Your task to perform on an android device: Find coffee shops on Maps Image 0: 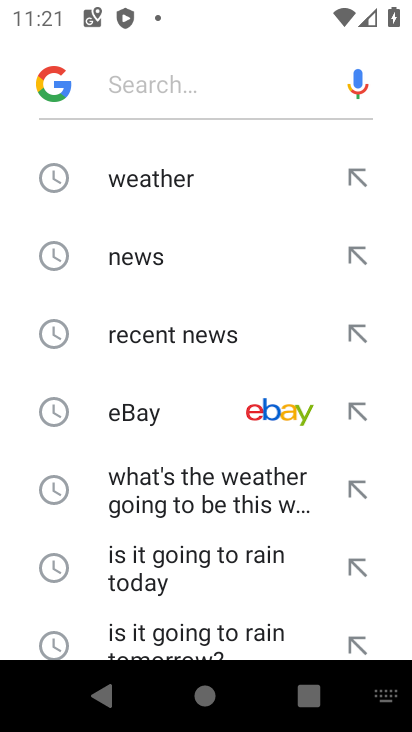
Step 0: press home button
Your task to perform on an android device: Find coffee shops on Maps Image 1: 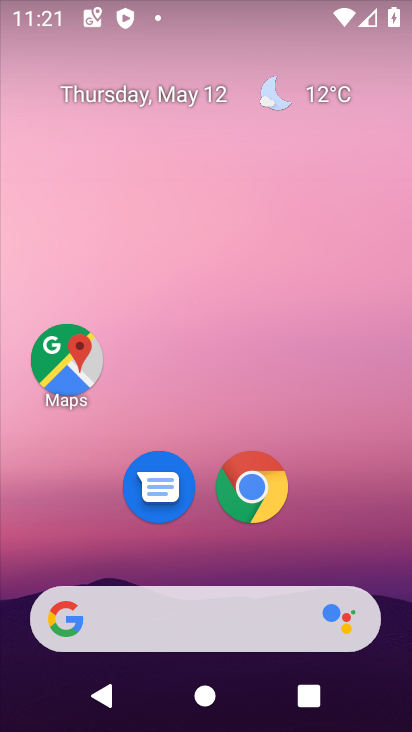
Step 1: click (72, 353)
Your task to perform on an android device: Find coffee shops on Maps Image 2: 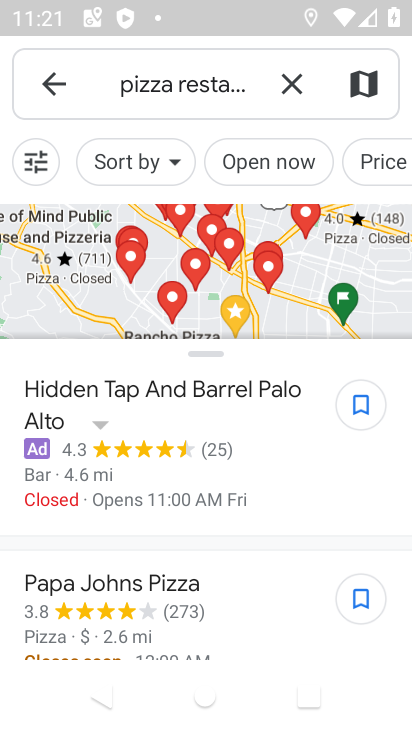
Step 2: click (294, 84)
Your task to perform on an android device: Find coffee shops on Maps Image 3: 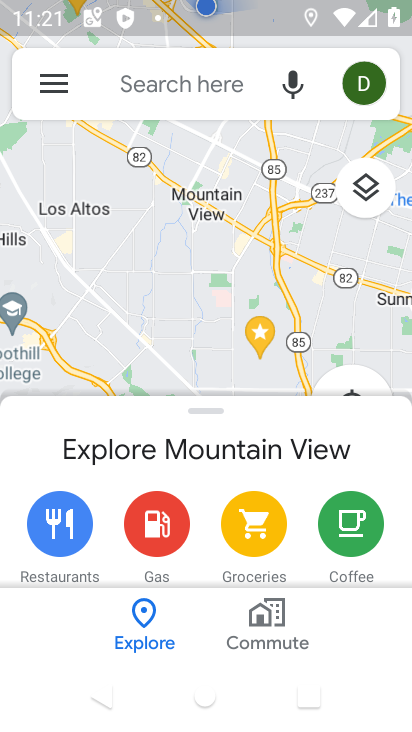
Step 3: click (145, 91)
Your task to perform on an android device: Find coffee shops on Maps Image 4: 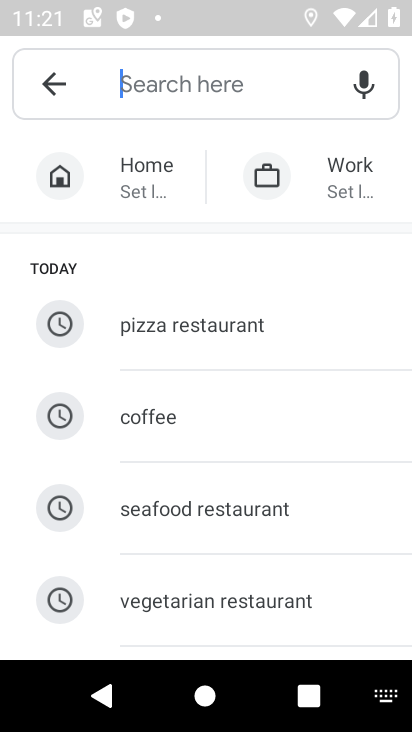
Step 4: type "coffee shop"
Your task to perform on an android device: Find coffee shops on Maps Image 5: 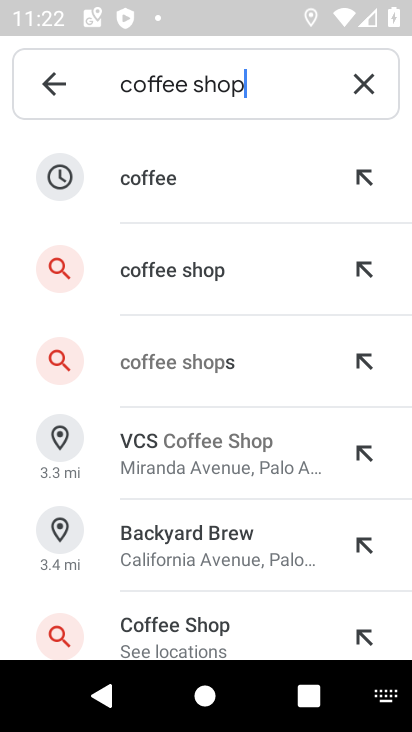
Step 5: click (170, 266)
Your task to perform on an android device: Find coffee shops on Maps Image 6: 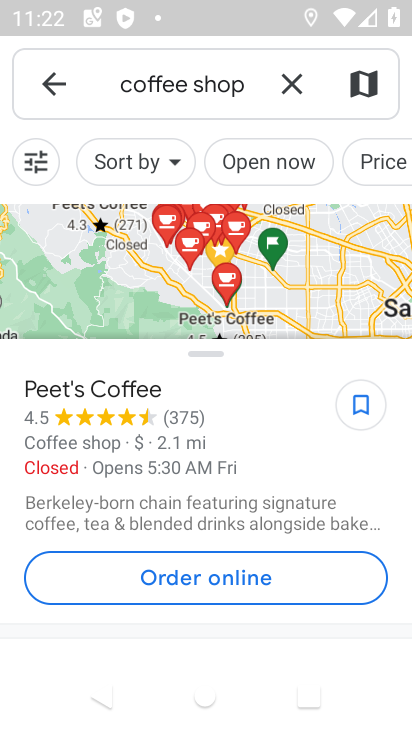
Step 6: task complete